Your task to perform on an android device: Open Google Maps and go to "Timeline" Image 0: 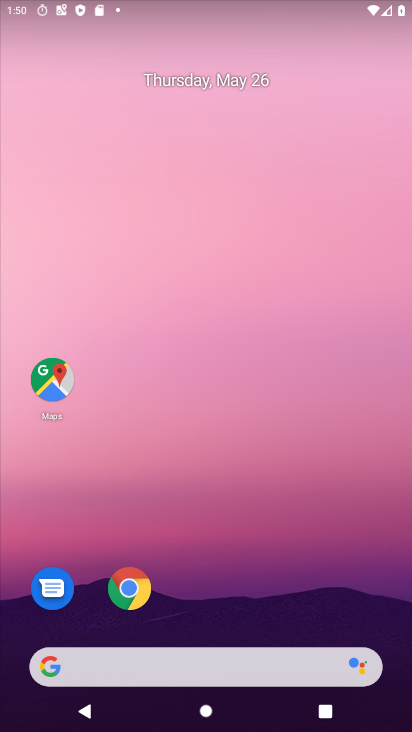
Step 0: drag from (392, 704) to (323, 183)
Your task to perform on an android device: Open Google Maps and go to "Timeline" Image 1: 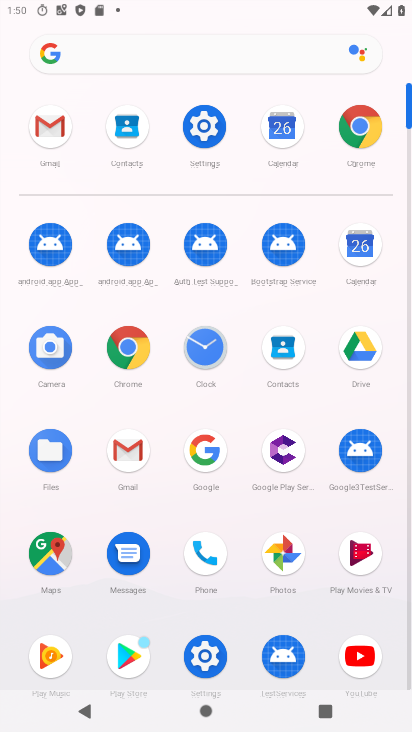
Step 1: click (63, 544)
Your task to perform on an android device: Open Google Maps and go to "Timeline" Image 2: 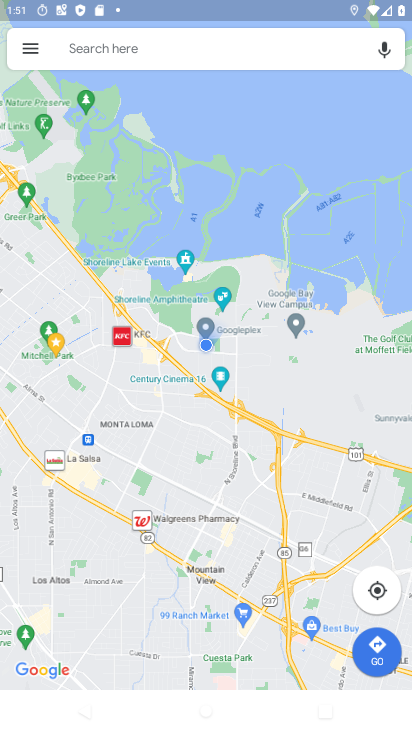
Step 2: click (36, 59)
Your task to perform on an android device: Open Google Maps and go to "Timeline" Image 3: 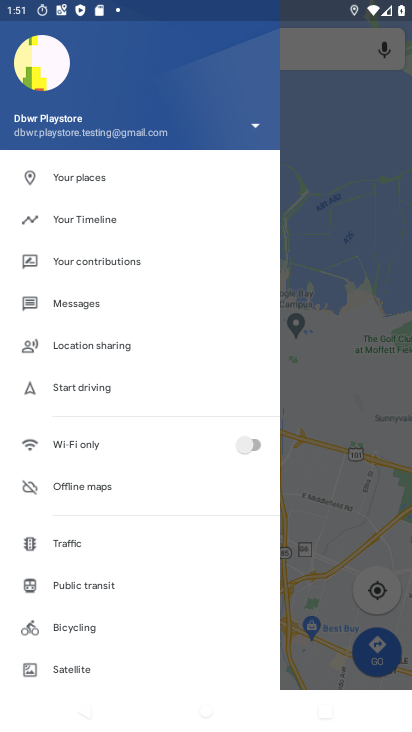
Step 3: click (90, 216)
Your task to perform on an android device: Open Google Maps and go to "Timeline" Image 4: 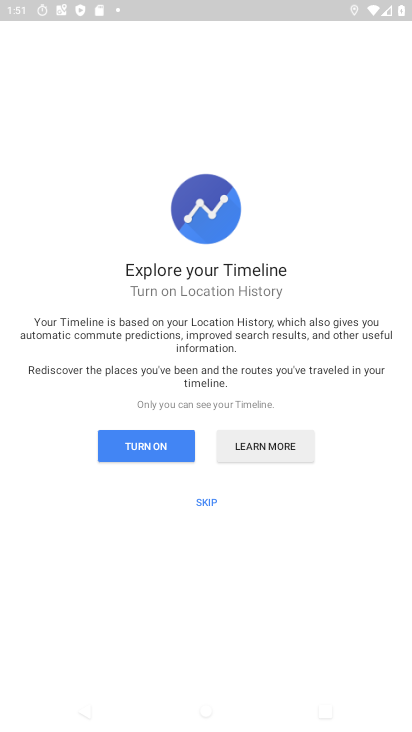
Step 4: click (161, 441)
Your task to perform on an android device: Open Google Maps and go to "Timeline" Image 5: 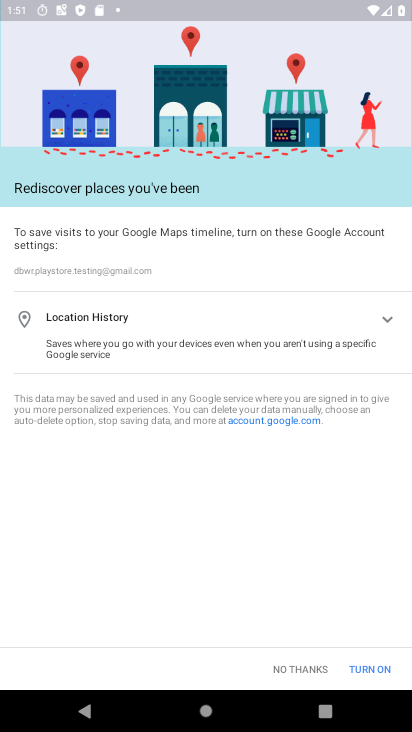
Step 5: click (365, 661)
Your task to perform on an android device: Open Google Maps and go to "Timeline" Image 6: 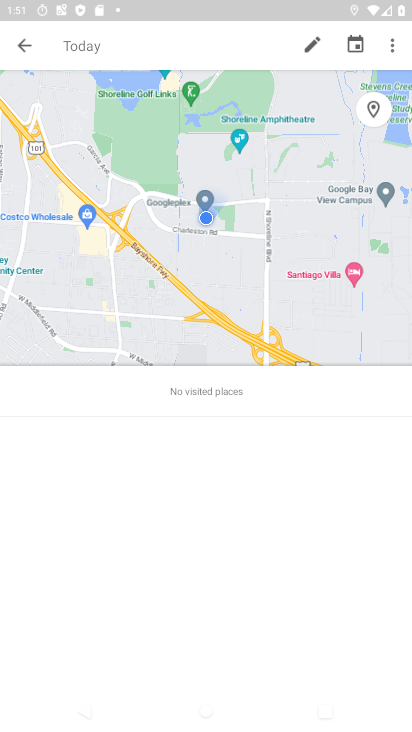
Step 6: task complete